Your task to perform on an android device: Show the shopping cart on walmart.com. Add asus rog to the cart on walmart.com, then select checkout. Image 0: 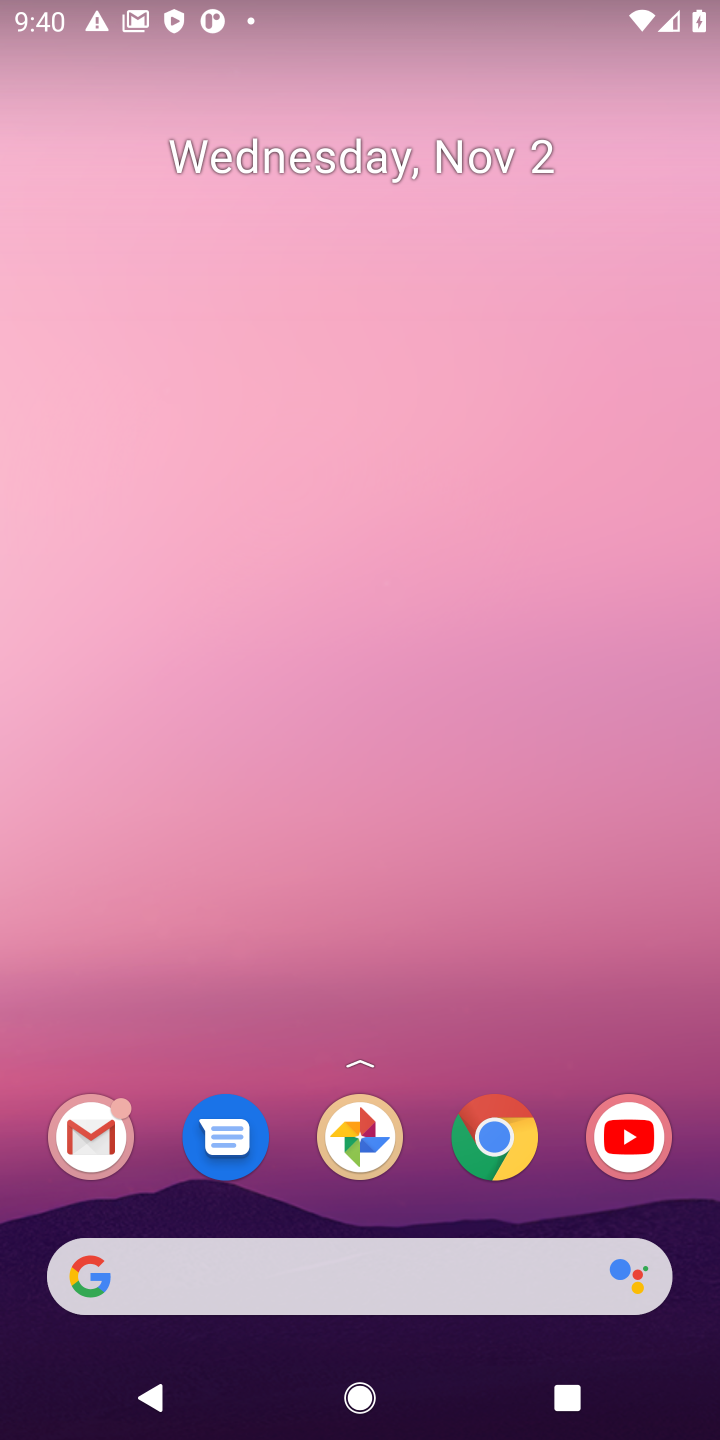
Step 0: click (483, 1139)
Your task to perform on an android device: Show the shopping cart on walmart.com. Add asus rog to the cart on walmart.com, then select checkout. Image 1: 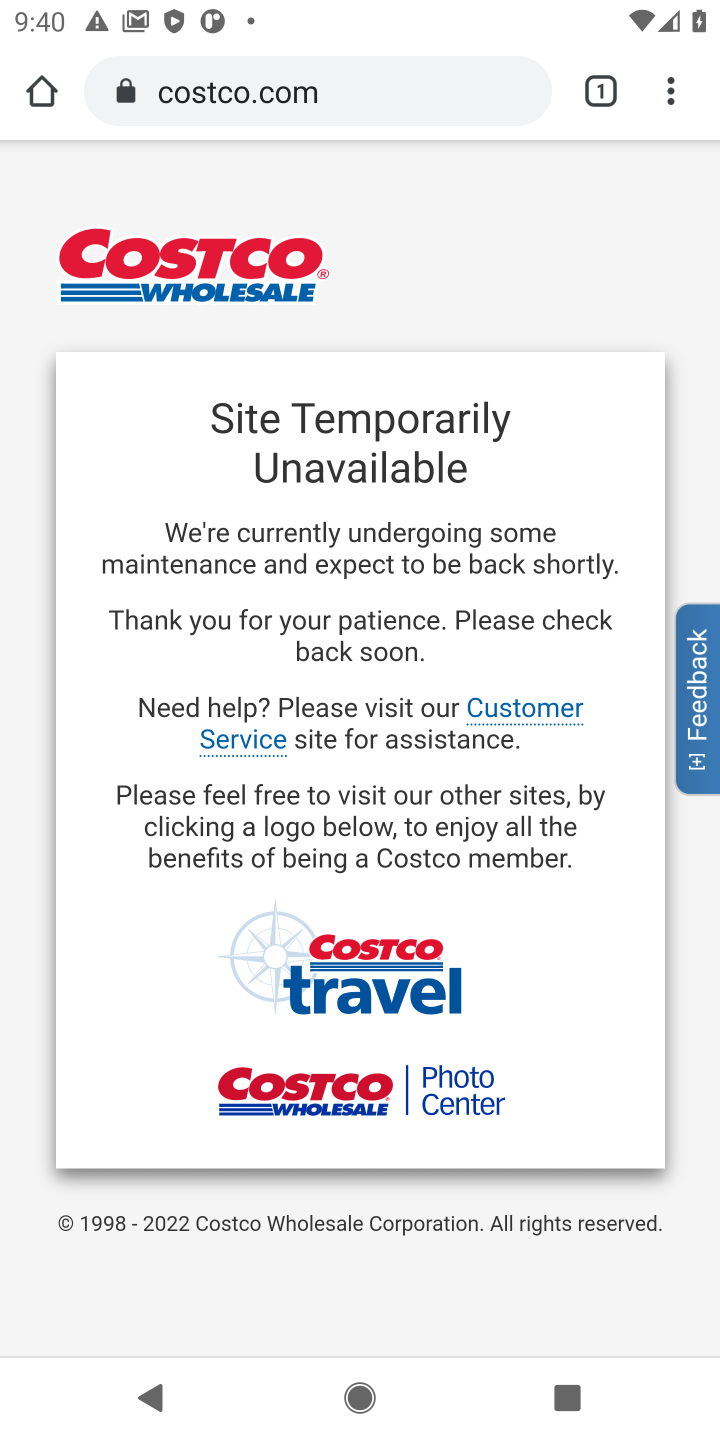
Step 1: click (320, 63)
Your task to perform on an android device: Show the shopping cart on walmart.com. Add asus rog to the cart on walmart.com, then select checkout. Image 2: 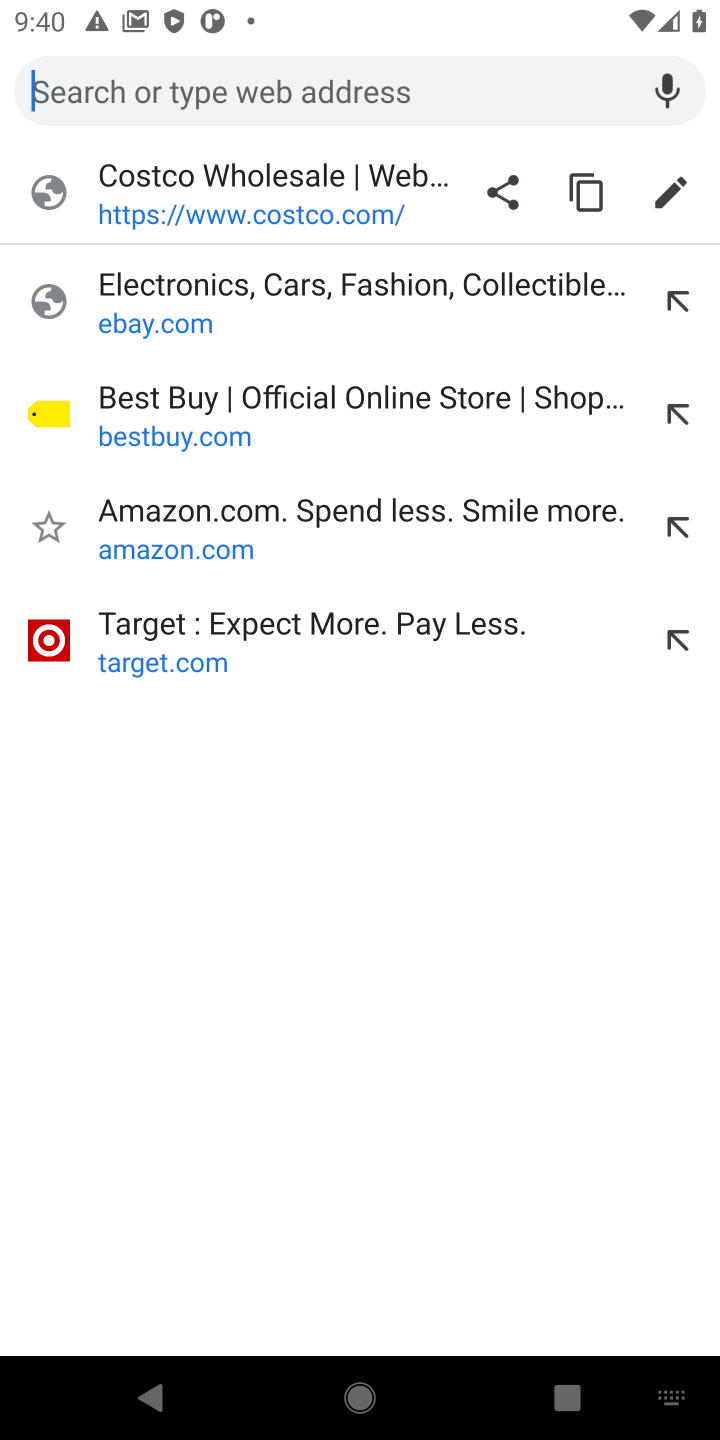
Step 2: type "walmart"
Your task to perform on an android device: Show the shopping cart on walmart.com. Add asus rog to the cart on walmart.com, then select checkout. Image 3: 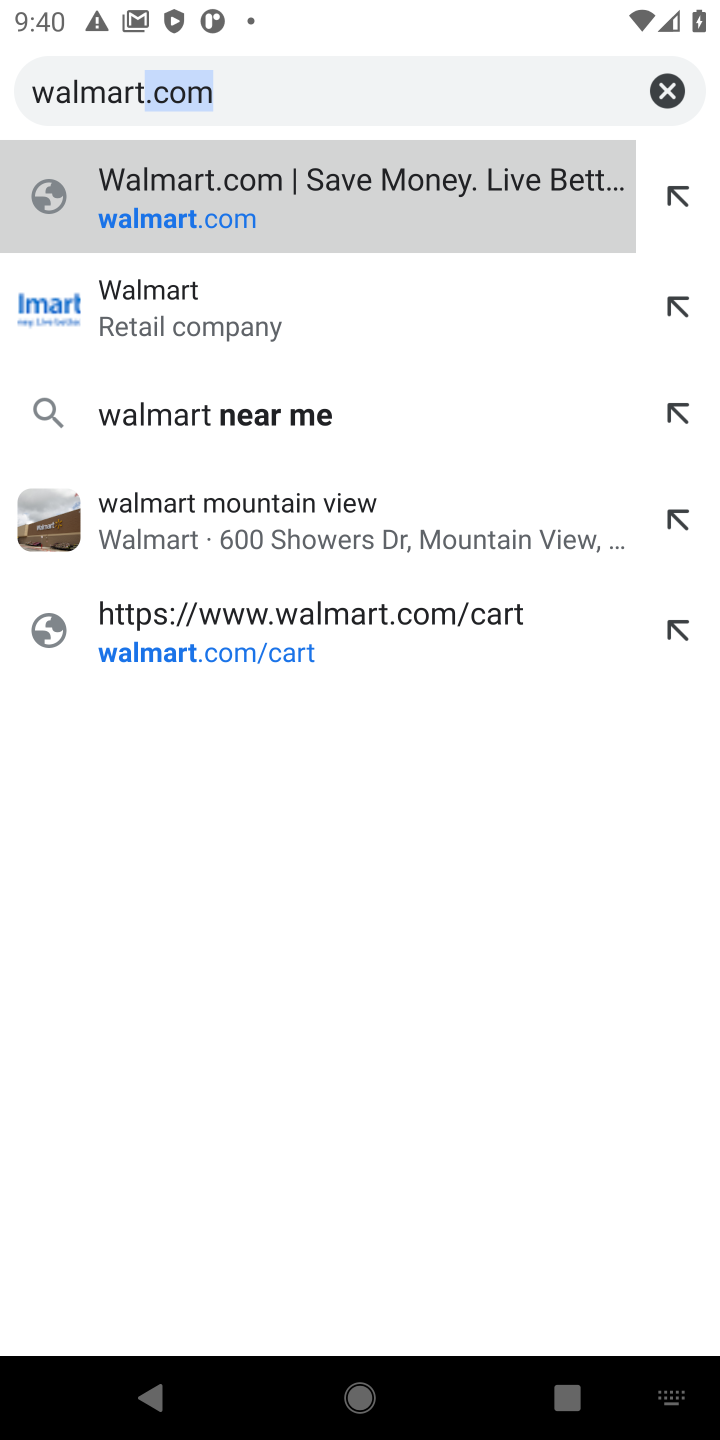
Step 3: click (173, 303)
Your task to perform on an android device: Show the shopping cart on walmart.com. Add asus rog to the cart on walmart.com, then select checkout. Image 4: 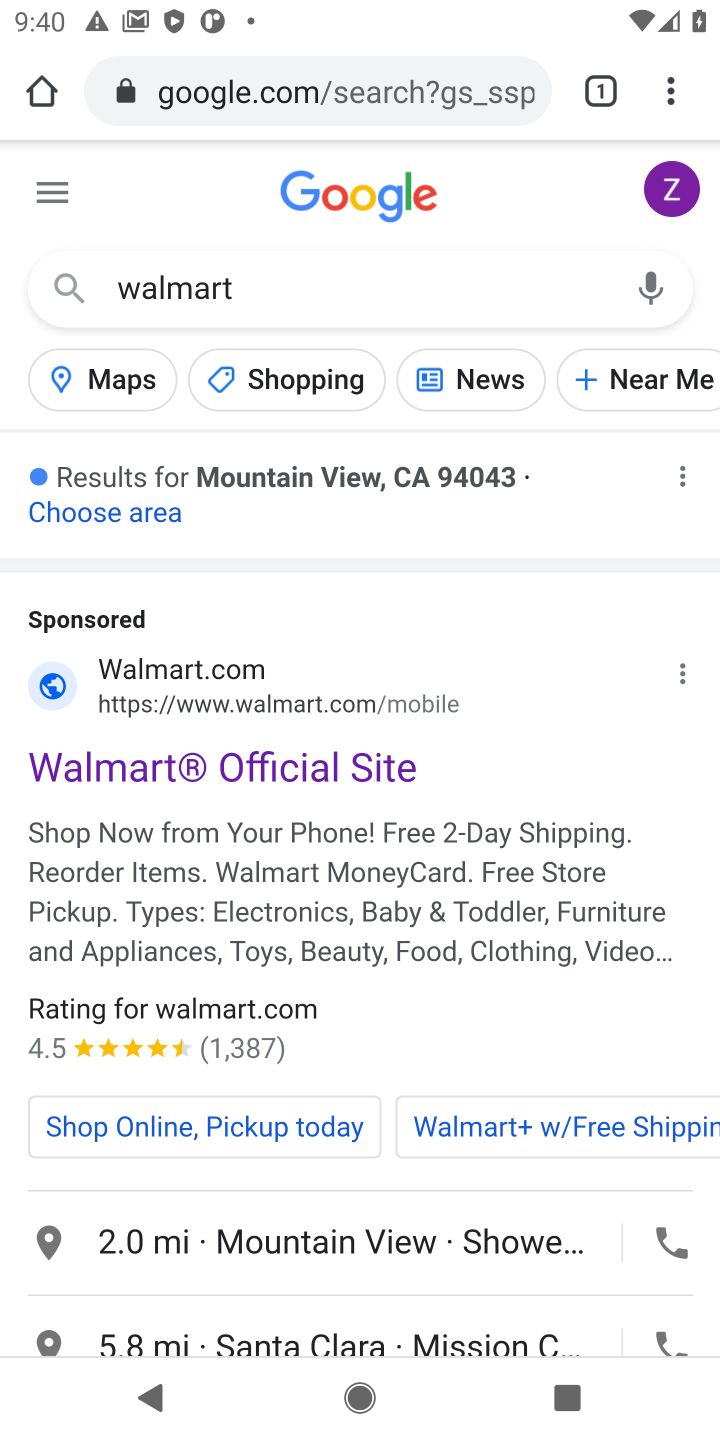
Step 4: click (82, 763)
Your task to perform on an android device: Show the shopping cart on walmart.com. Add asus rog to the cart on walmart.com, then select checkout. Image 5: 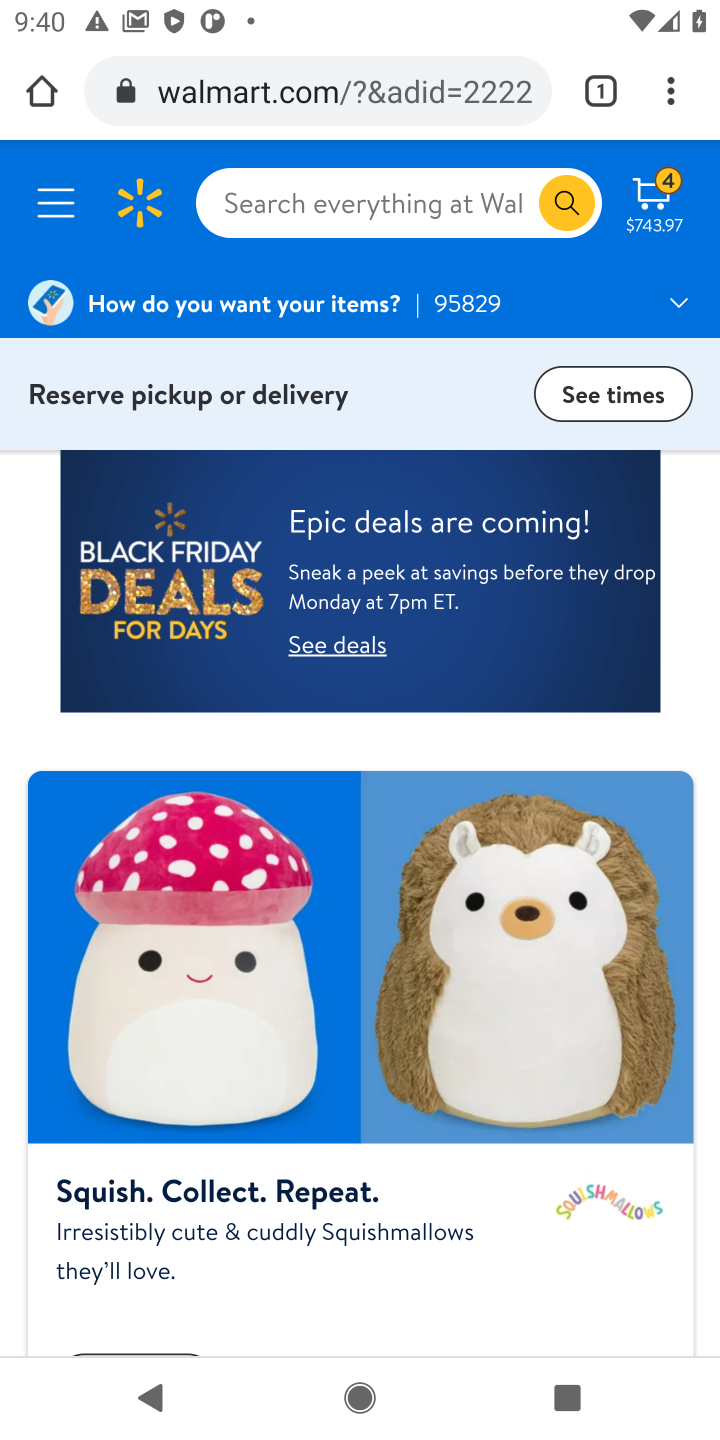
Step 5: click (652, 188)
Your task to perform on an android device: Show the shopping cart on walmart.com. Add asus rog to the cart on walmart.com, then select checkout. Image 6: 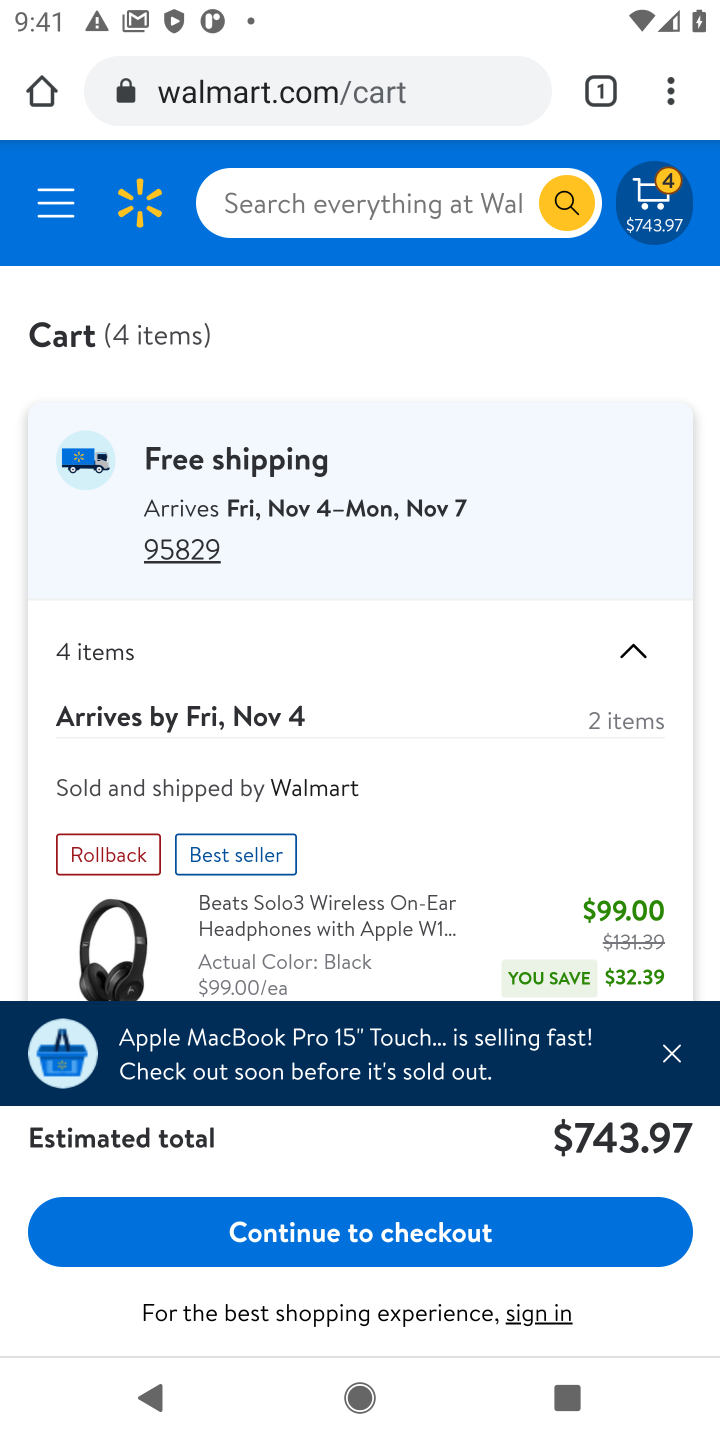
Step 6: click (293, 185)
Your task to perform on an android device: Show the shopping cart on walmart.com. Add asus rog to the cart on walmart.com, then select checkout. Image 7: 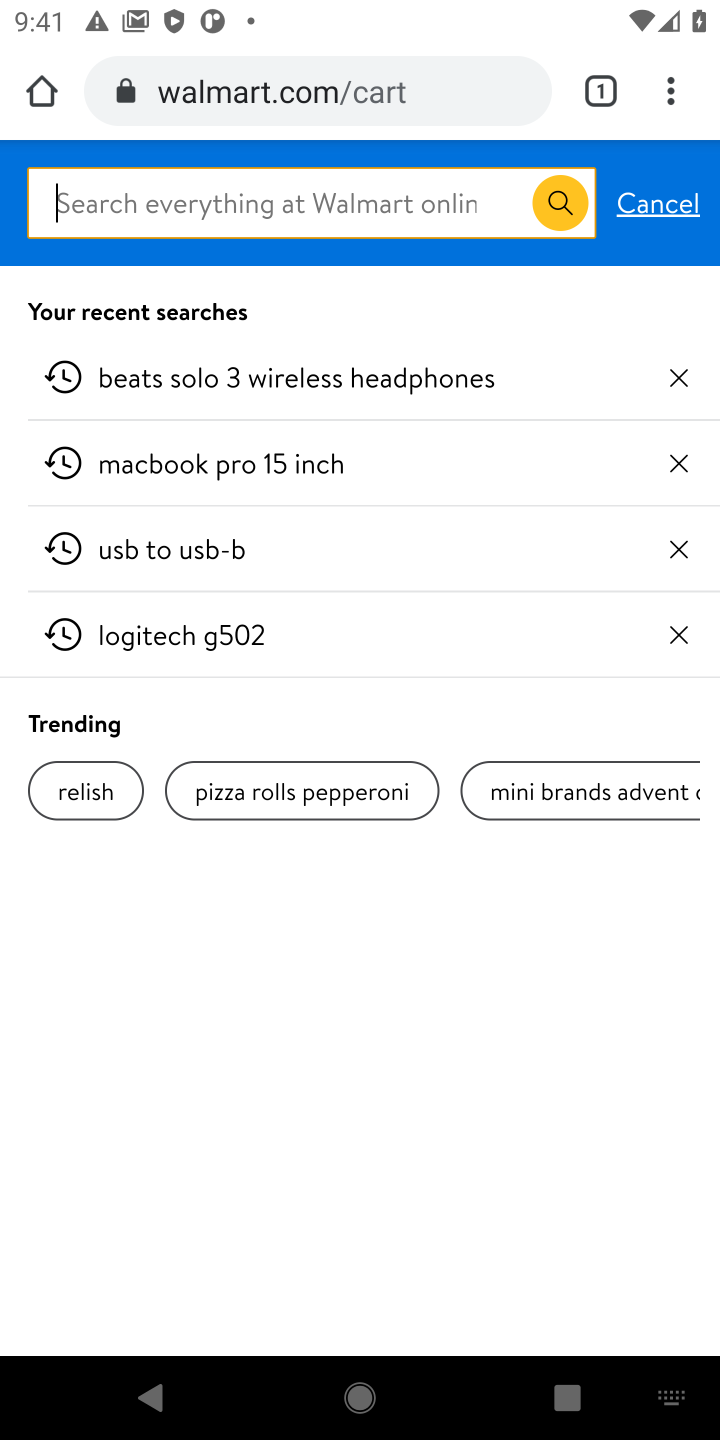
Step 7: type "asus rog"
Your task to perform on an android device: Show the shopping cart on walmart.com. Add asus rog to the cart on walmart.com, then select checkout. Image 8: 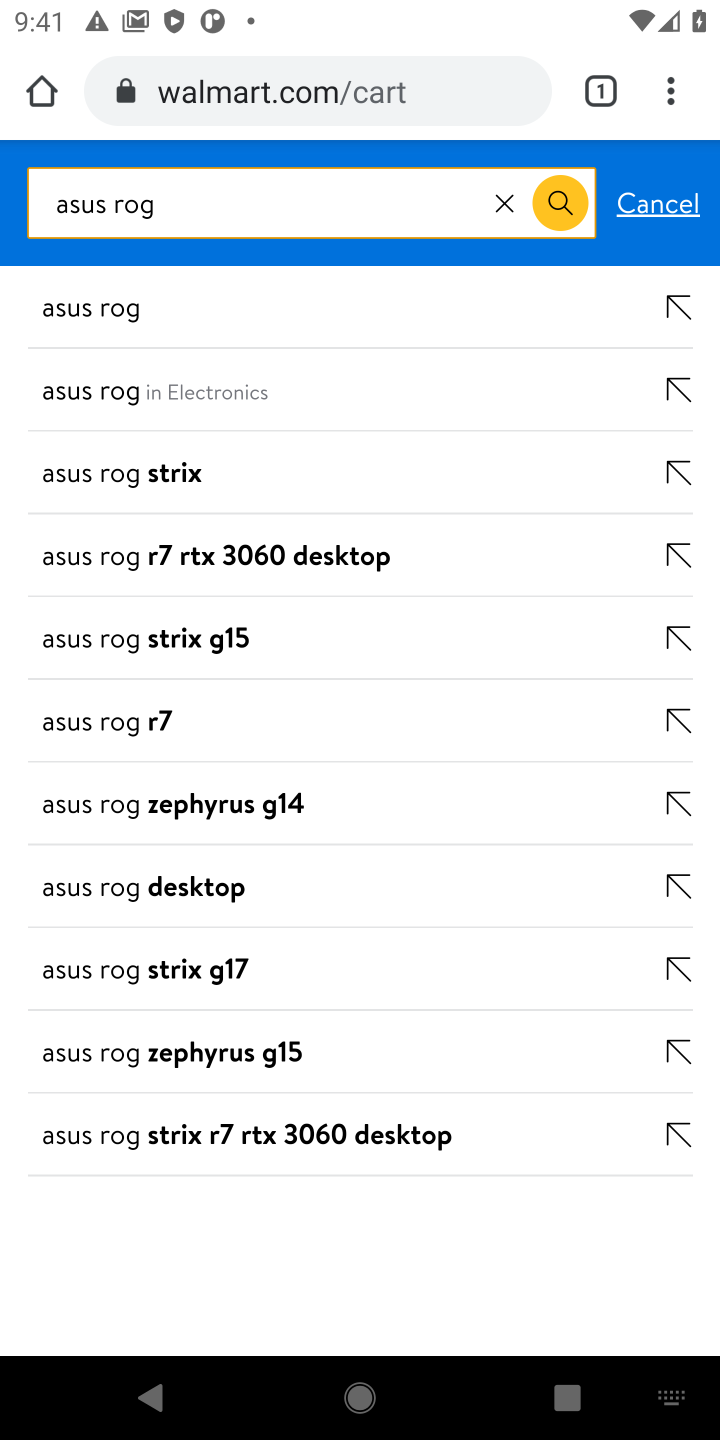
Step 8: click (74, 300)
Your task to perform on an android device: Show the shopping cart on walmart.com. Add asus rog to the cart on walmart.com, then select checkout. Image 9: 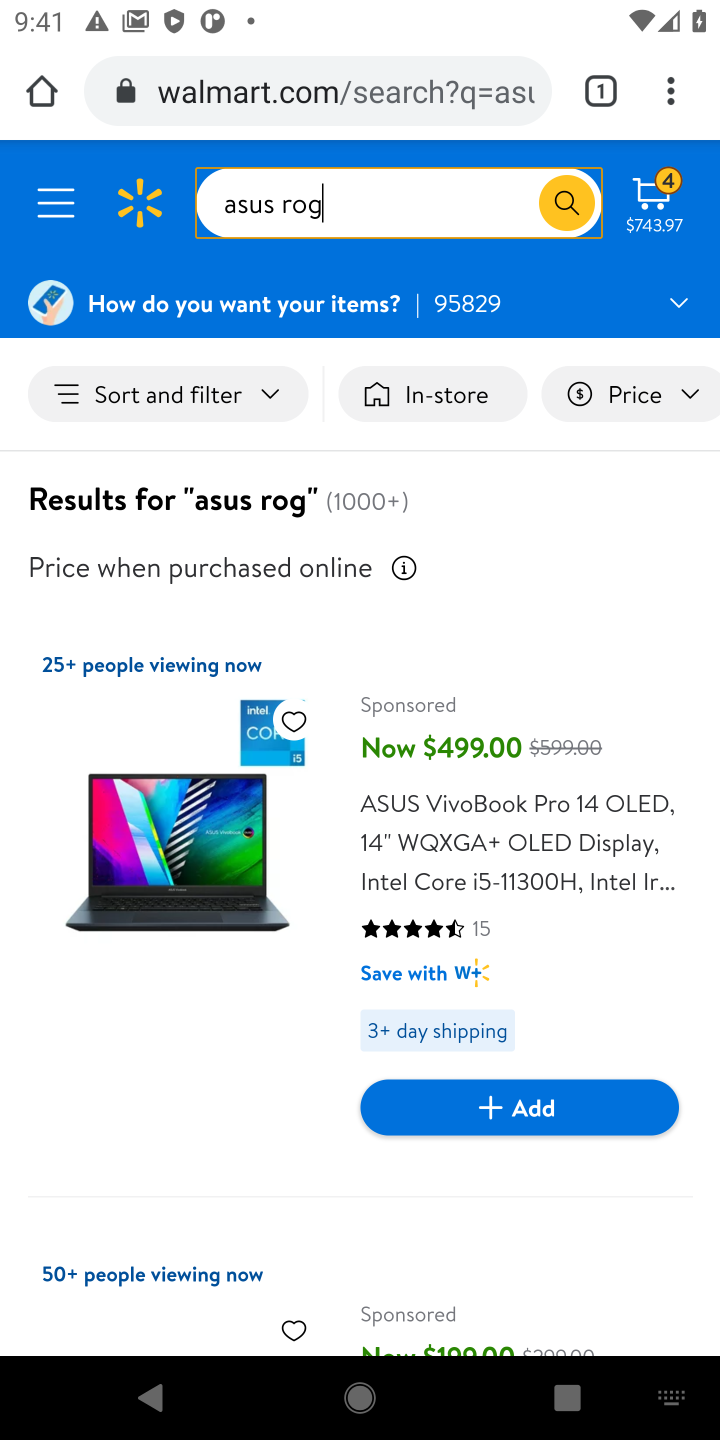
Step 9: drag from (308, 986) to (407, 251)
Your task to perform on an android device: Show the shopping cart on walmart.com. Add asus rog to the cart on walmart.com, then select checkout. Image 10: 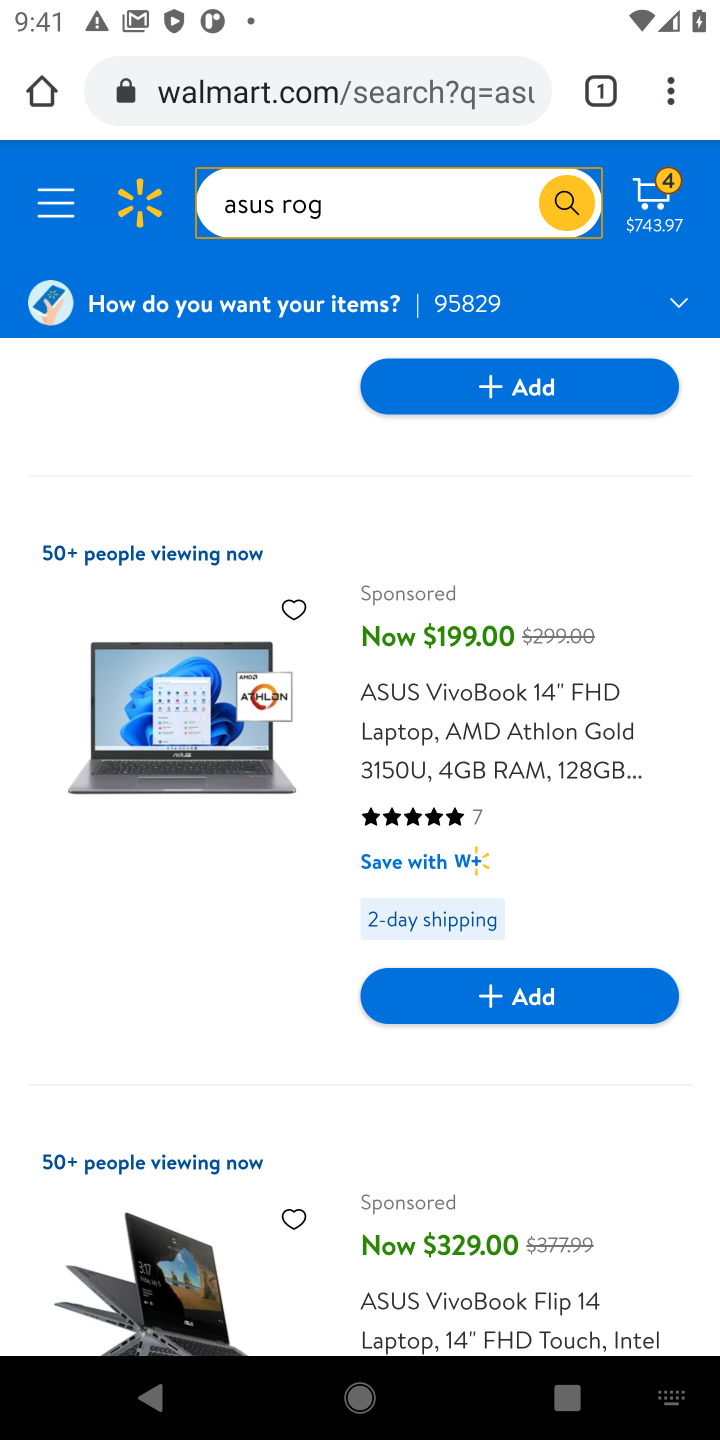
Step 10: drag from (356, 1115) to (383, 342)
Your task to perform on an android device: Show the shopping cart on walmart.com. Add asus rog to the cart on walmart.com, then select checkout. Image 11: 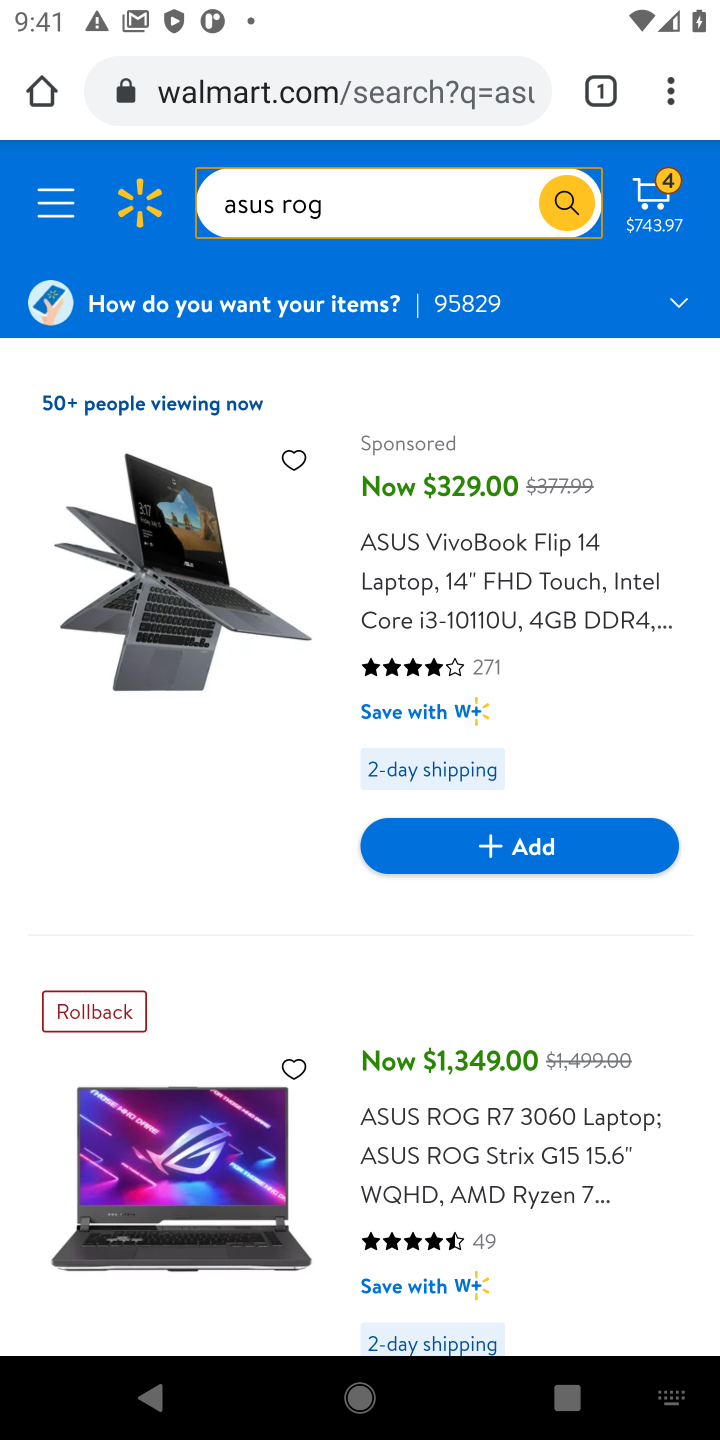
Step 11: drag from (339, 1105) to (373, 644)
Your task to perform on an android device: Show the shopping cart on walmart.com. Add asus rog to the cart on walmart.com, then select checkout. Image 12: 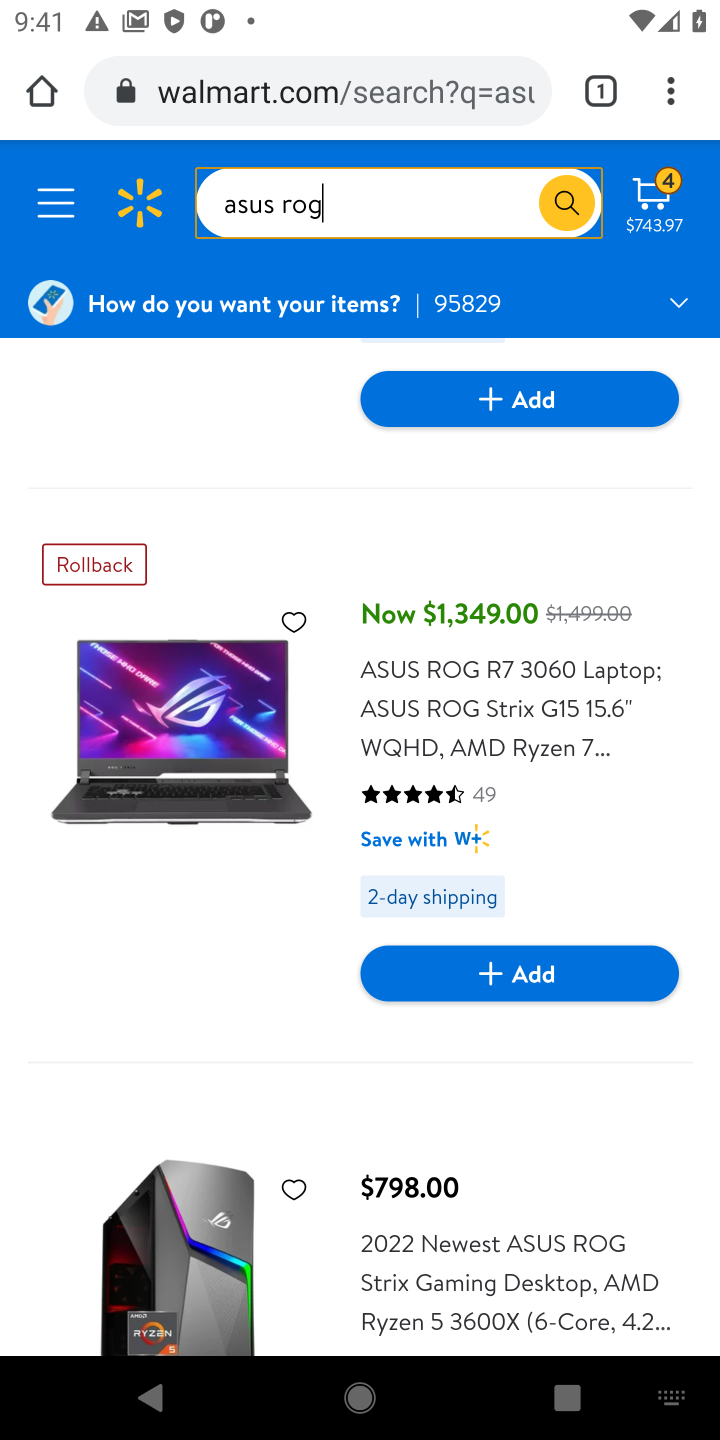
Step 12: click (494, 974)
Your task to perform on an android device: Show the shopping cart on walmart.com. Add asus rog to the cart on walmart.com, then select checkout. Image 13: 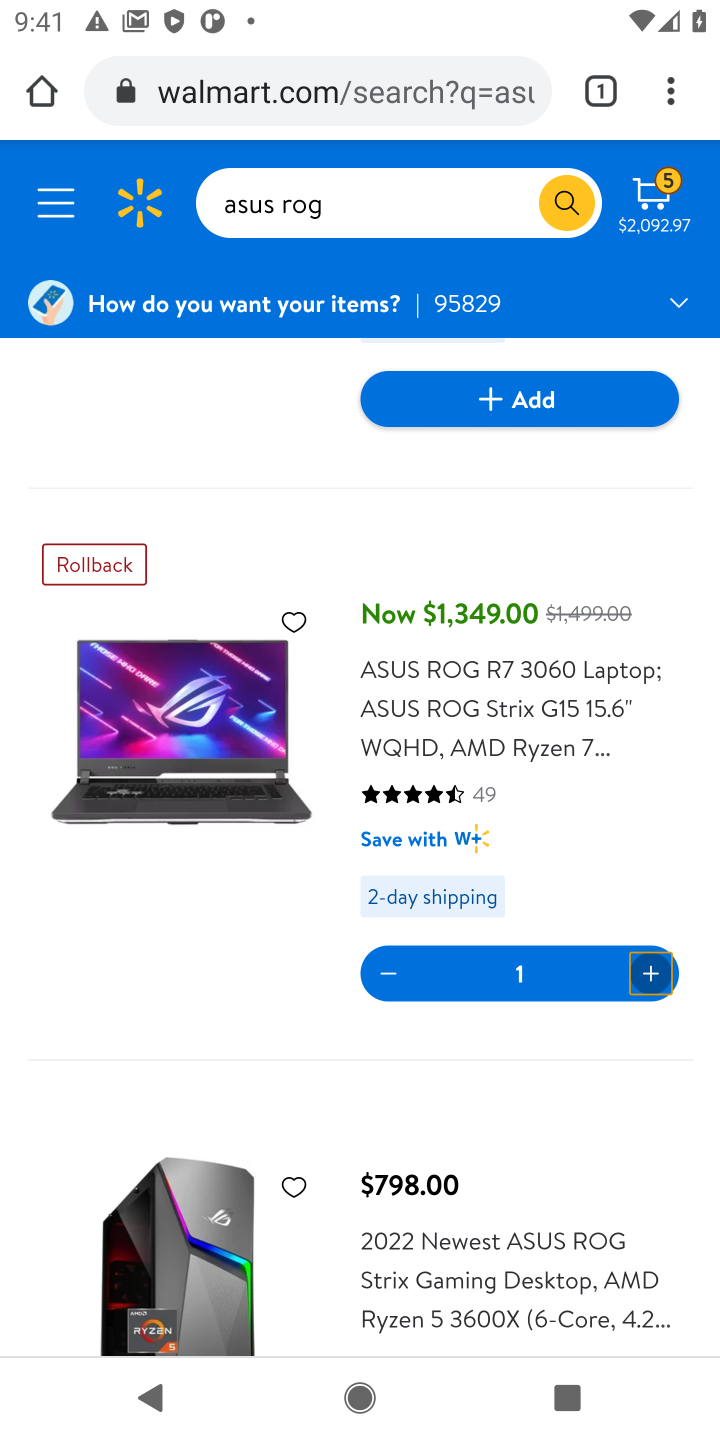
Step 13: click (643, 181)
Your task to perform on an android device: Show the shopping cart on walmart.com. Add asus rog to the cart on walmart.com, then select checkout. Image 14: 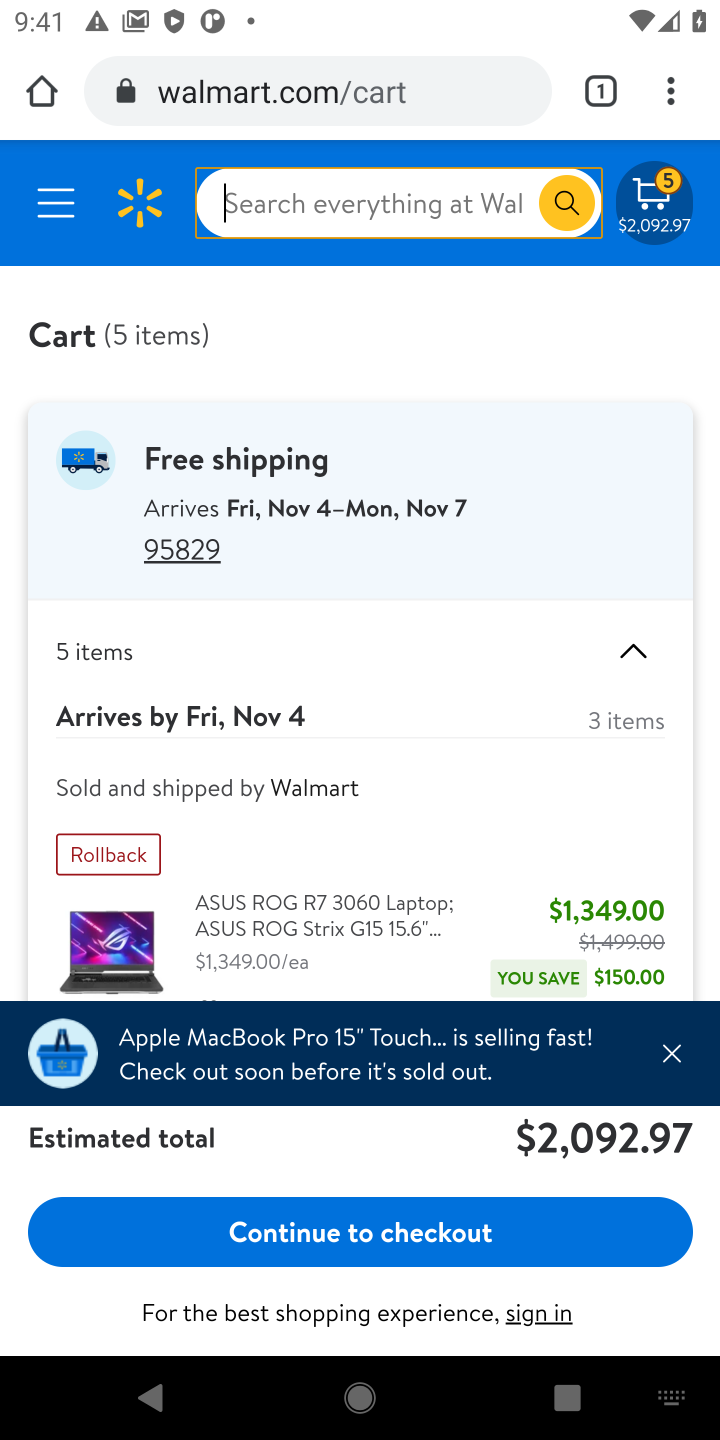
Step 14: click (309, 1236)
Your task to perform on an android device: Show the shopping cart on walmart.com. Add asus rog to the cart on walmart.com, then select checkout. Image 15: 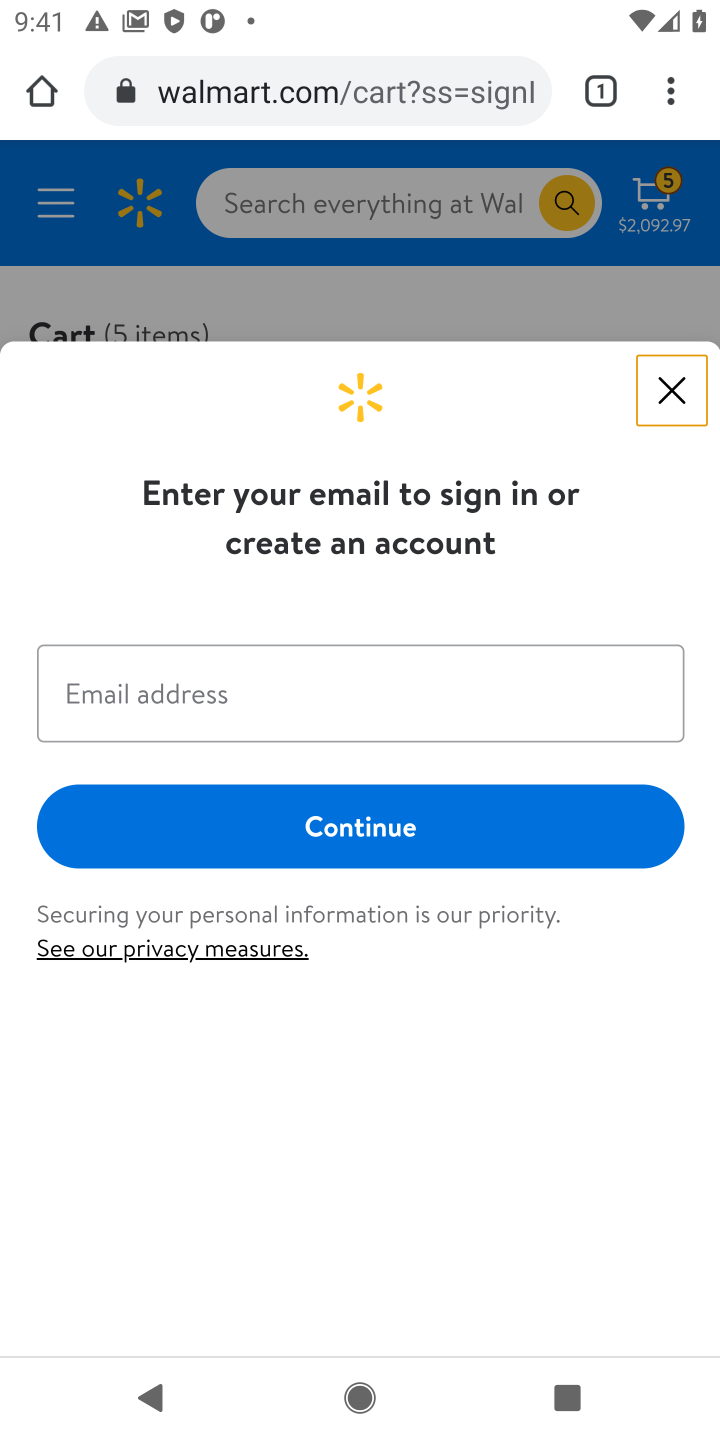
Step 15: task complete